Your task to perform on an android device: Do I have any events this weekend? Image 0: 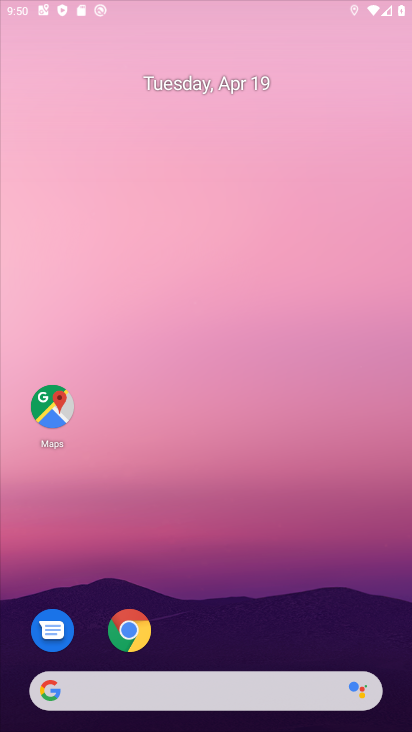
Step 0: click (128, 632)
Your task to perform on an android device: Do I have any events this weekend? Image 1: 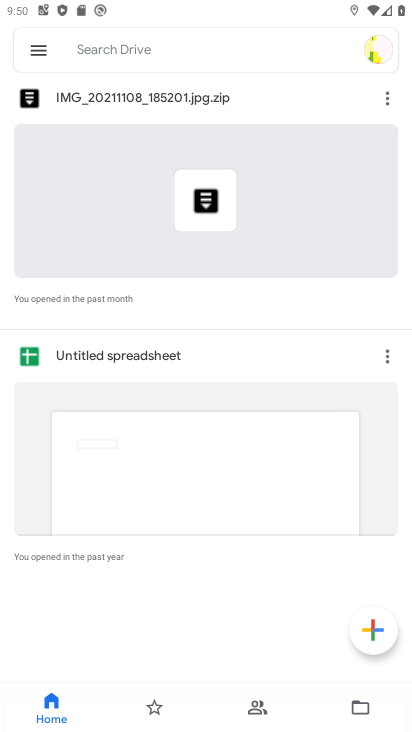
Step 1: press home button
Your task to perform on an android device: Do I have any events this weekend? Image 2: 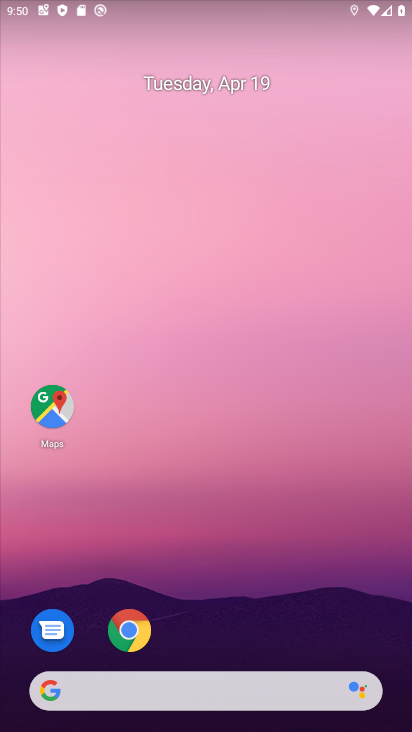
Step 2: drag from (260, 615) to (247, 151)
Your task to perform on an android device: Do I have any events this weekend? Image 3: 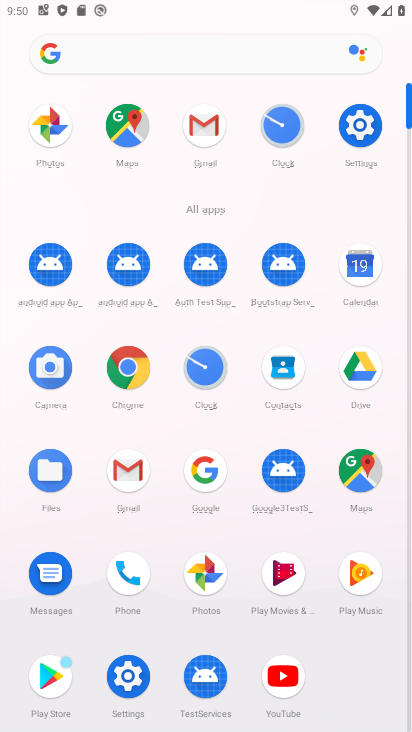
Step 3: click (352, 270)
Your task to perform on an android device: Do I have any events this weekend? Image 4: 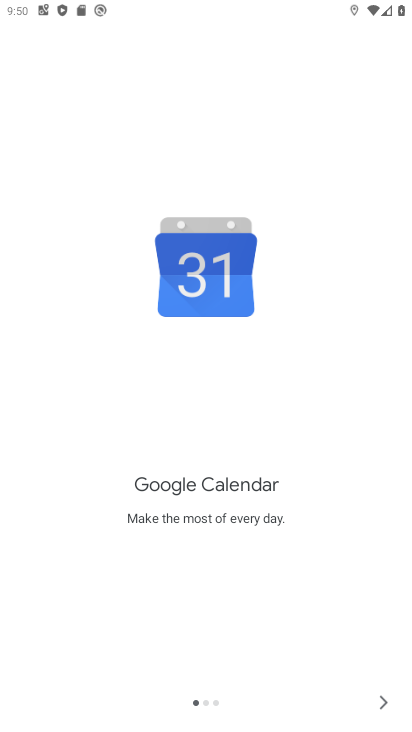
Step 4: click (372, 691)
Your task to perform on an android device: Do I have any events this weekend? Image 5: 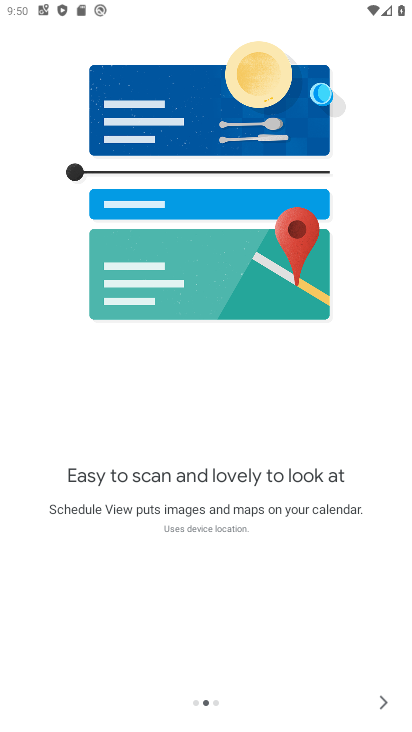
Step 5: click (381, 704)
Your task to perform on an android device: Do I have any events this weekend? Image 6: 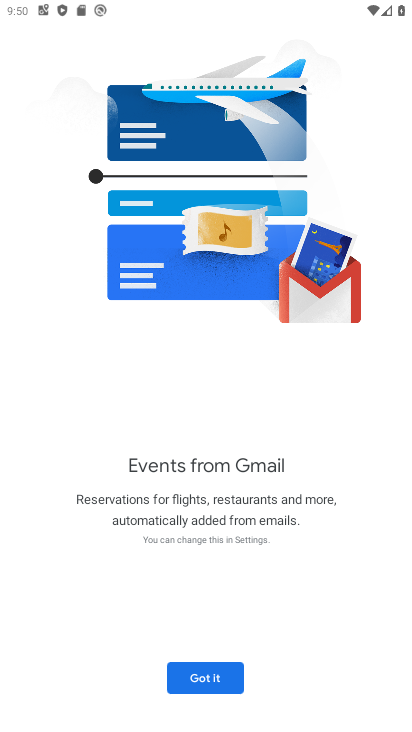
Step 6: click (206, 679)
Your task to perform on an android device: Do I have any events this weekend? Image 7: 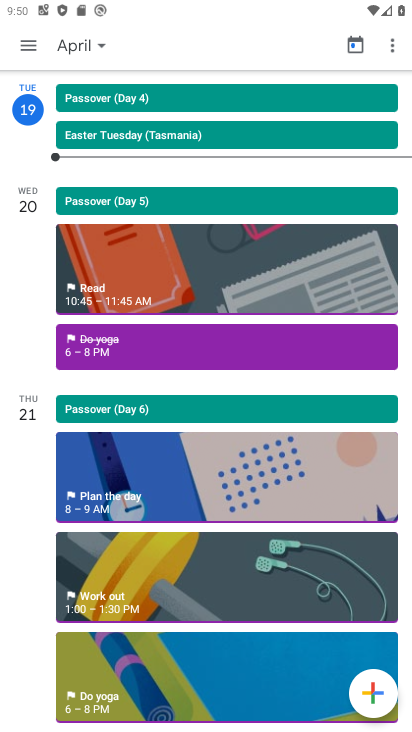
Step 7: task complete